Your task to perform on an android device: empty trash in the gmail app Image 0: 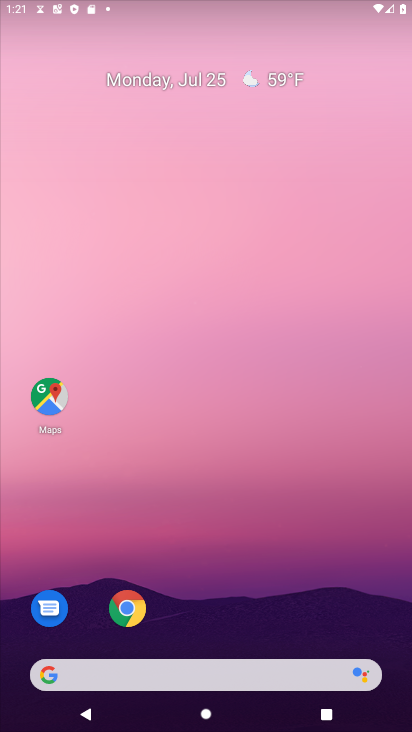
Step 0: drag from (243, 609) to (256, 136)
Your task to perform on an android device: empty trash in the gmail app Image 1: 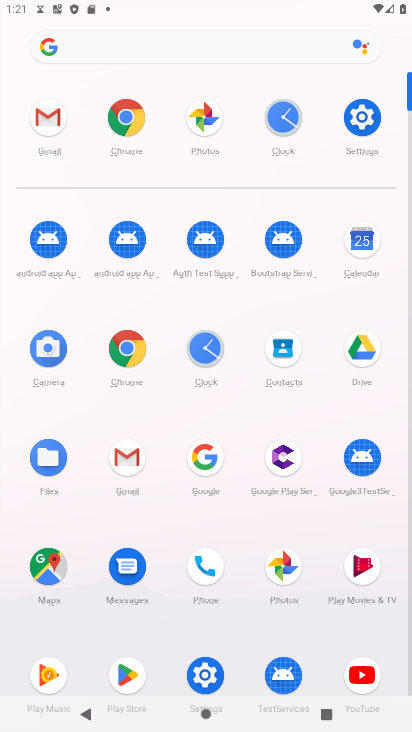
Step 1: click (145, 468)
Your task to perform on an android device: empty trash in the gmail app Image 2: 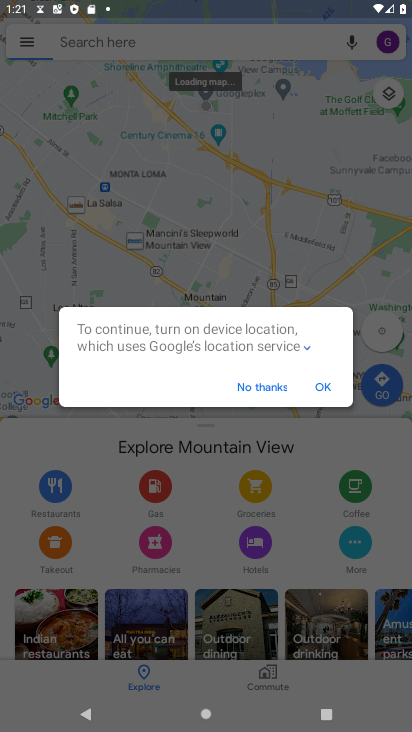
Step 2: click (332, 393)
Your task to perform on an android device: empty trash in the gmail app Image 3: 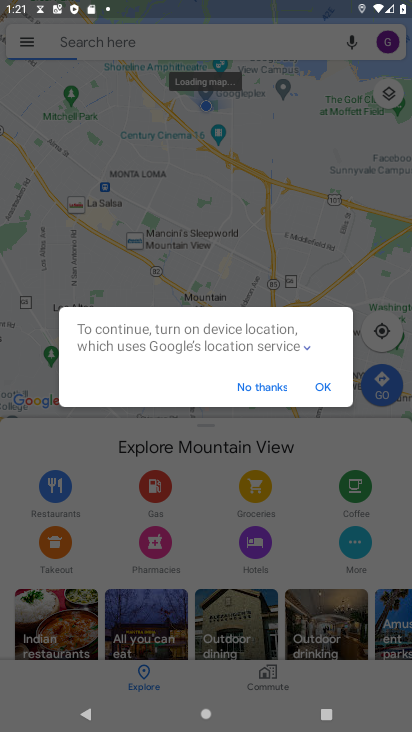
Step 3: click (325, 381)
Your task to perform on an android device: empty trash in the gmail app Image 4: 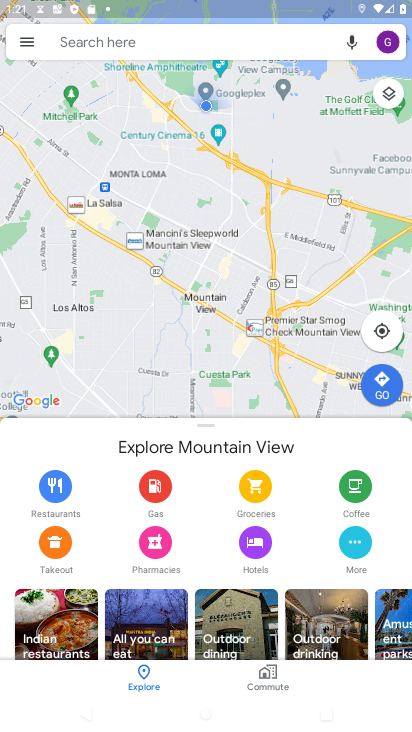
Step 4: click (30, 39)
Your task to perform on an android device: empty trash in the gmail app Image 5: 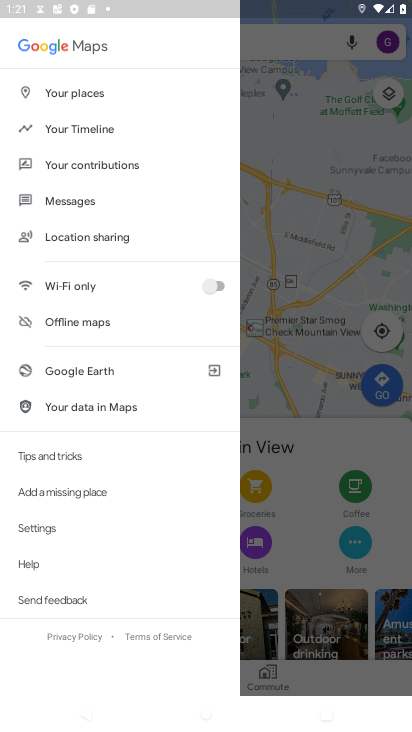
Step 5: press home button
Your task to perform on an android device: empty trash in the gmail app Image 6: 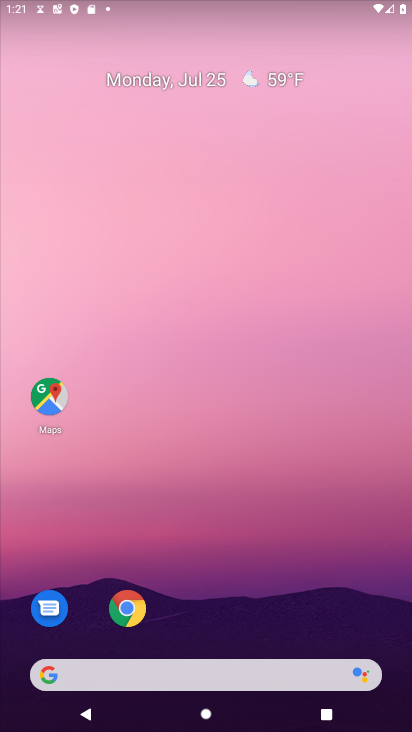
Step 6: drag from (272, 571) to (287, 0)
Your task to perform on an android device: empty trash in the gmail app Image 7: 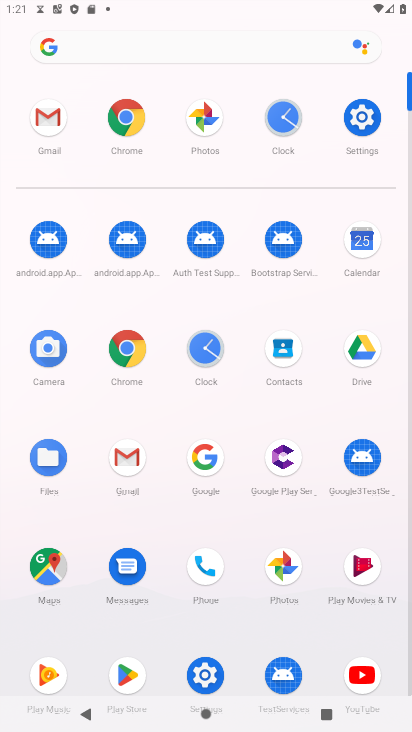
Step 7: click (126, 465)
Your task to perform on an android device: empty trash in the gmail app Image 8: 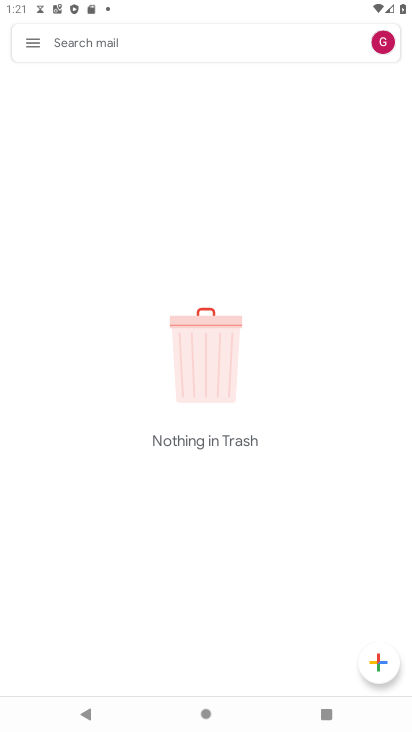
Step 8: click (30, 34)
Your task to perform on an android device: empty trash in the gmail app Image 9: 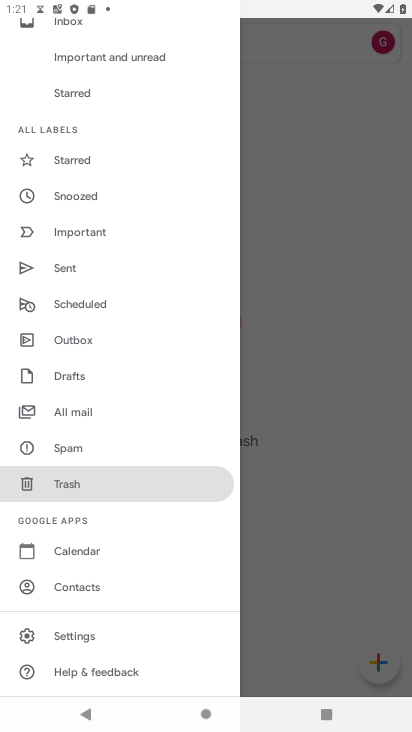
Step 9: click (86, 481)
Your task to perform on an android device: empty trash in the gmail app Image 10: 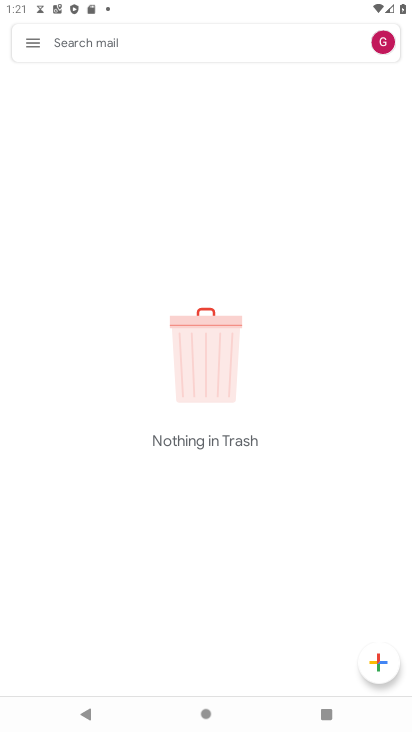
Step 10: task complete